Your task to perform on an android device: change timer sound Image 0: 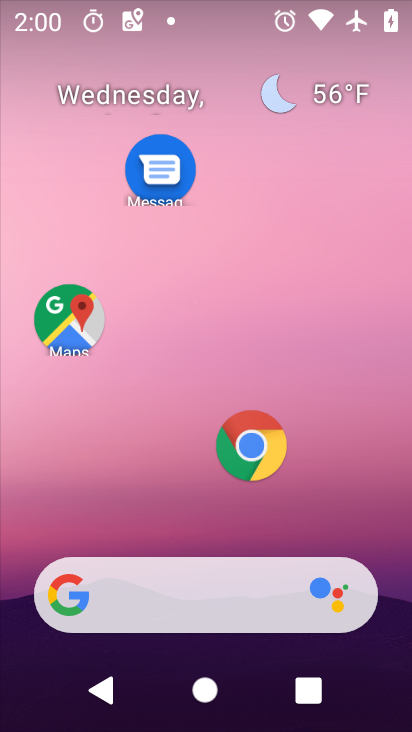
Step 0: drag from (187, 526) to (217, 78)
Your task to perform on an android device: change timer sound Image 1: 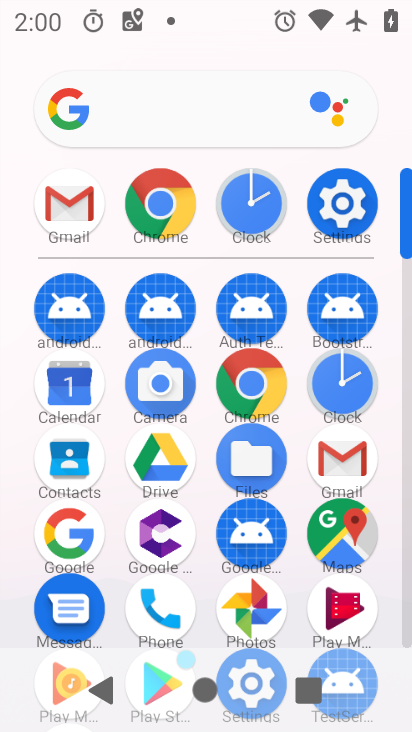
Step 1: drag from (194, 258) to (192, 137)
Your task to perform on an android device: change timer sound Image 2: 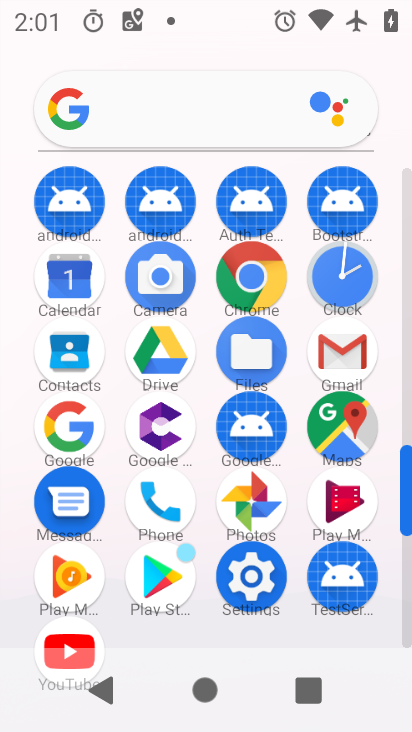
Step 2: click (342, 289)
Your task to perform on an android device: change timer sound Image 3: 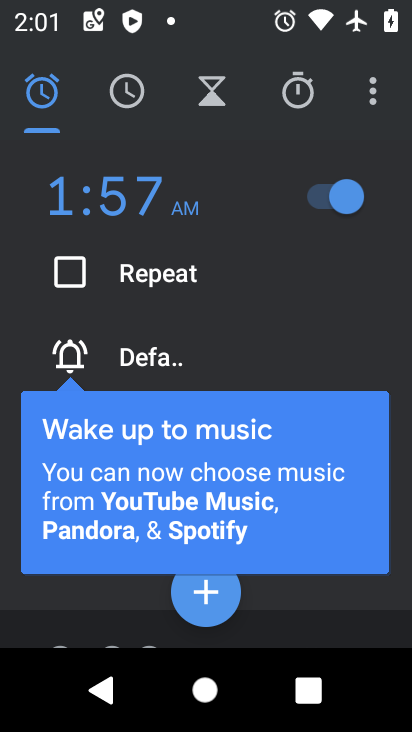
Step 3: click (205, 100)
Your task to perform on an android device: change timer sound Image 4: 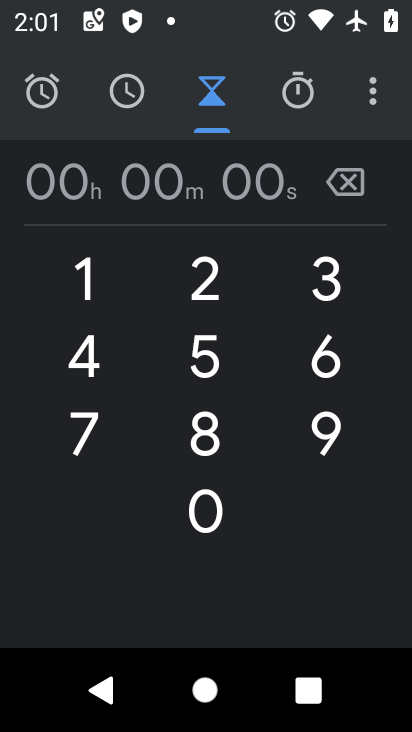
Step 4: click (362, 94)
Your task to perform on an android device: change timer sound Image 5: 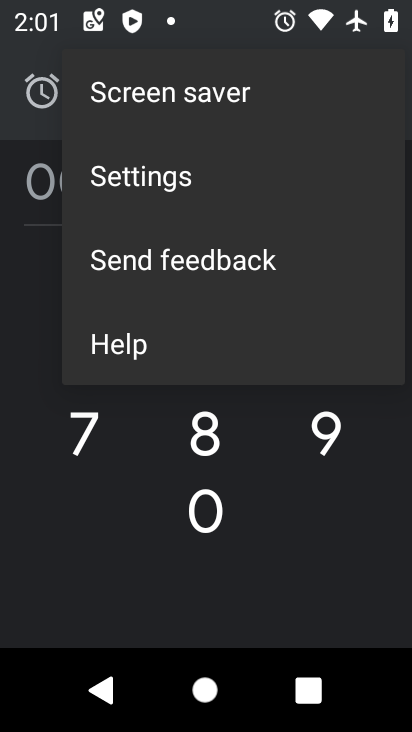
Step 5: click (210, 184)
Your task to perform on an android device: change timer sound Image 6: 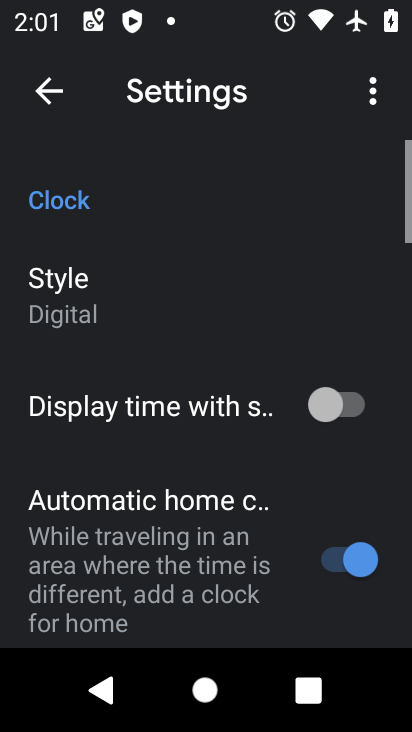
Step 6: drag from (155, 521) to (169, 17)
Your task to perform on an android device: change timer sound Image 7: 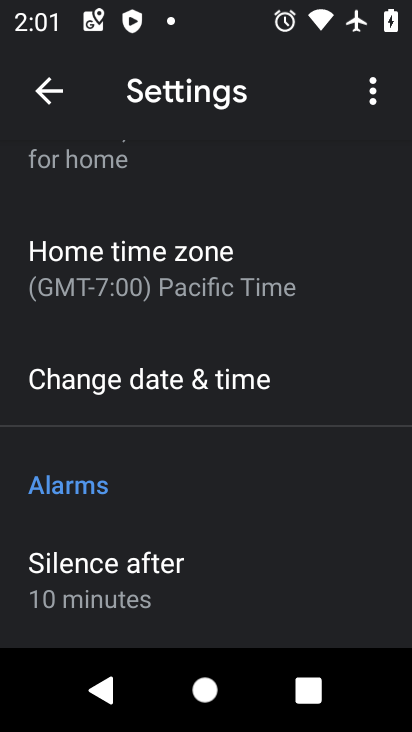
Step 7: drag from (198, 544) to (206, 162)
Your task to perform on an android device: change timer sound Image 8: 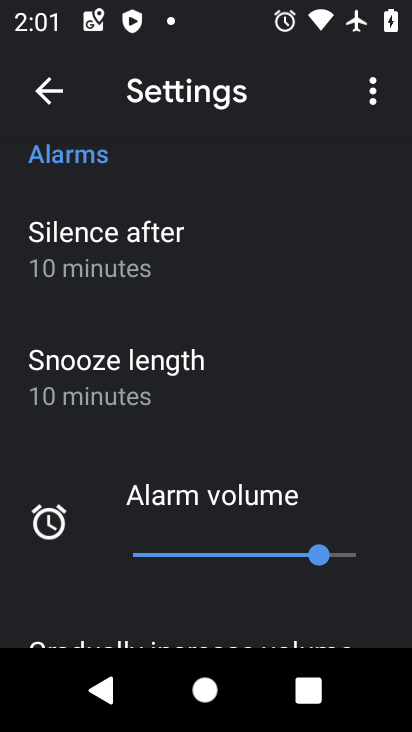
Step 8: drag from (219, 450) to (190, 109)
Your task to perform on an android device: change timer sound Image 9: 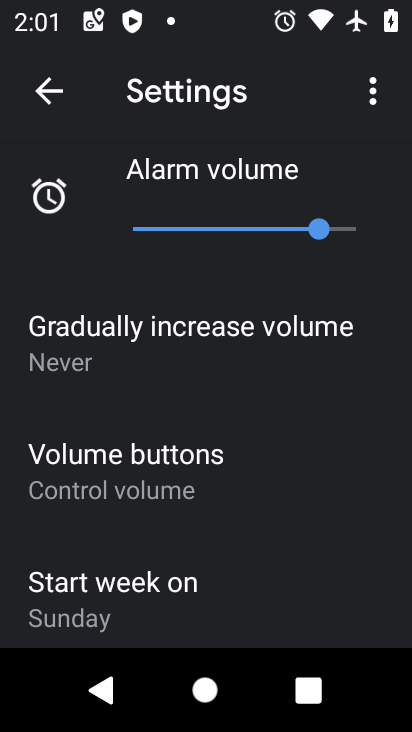
Step 9: drag from (194, 465) to (185, 116)
Your task to perform on an android device: change timer sound Image 10: 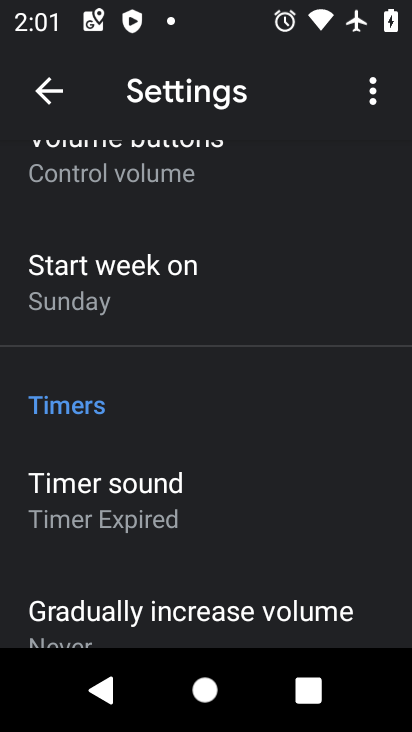
Step 10: drag from (181, 498) to (187, 260)
Your task to perform on an android device: change timer sound Image 11: 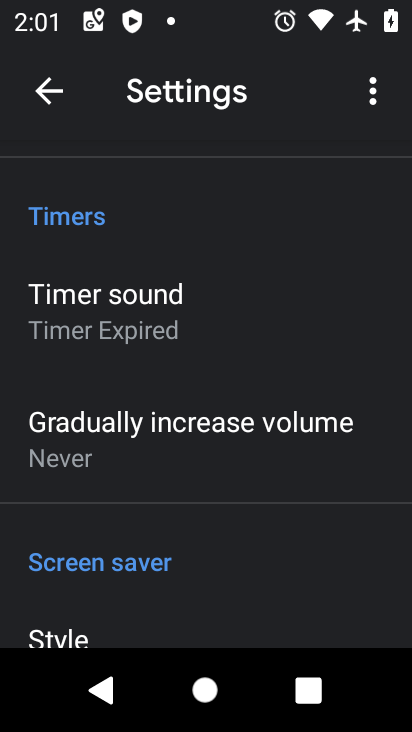
Step 11: click (183, 310)
Your task to perform on an android device: change timer sound Image 12: 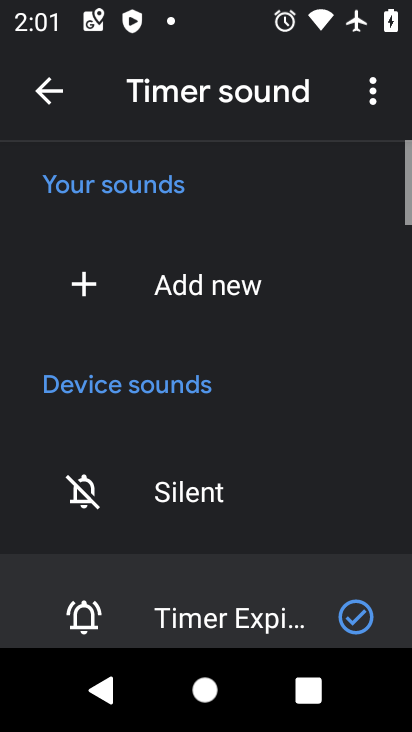
Step 12: drag from (179, 513) to (202, 118)
Your task to perform on an android device: change timer sound Image 13: 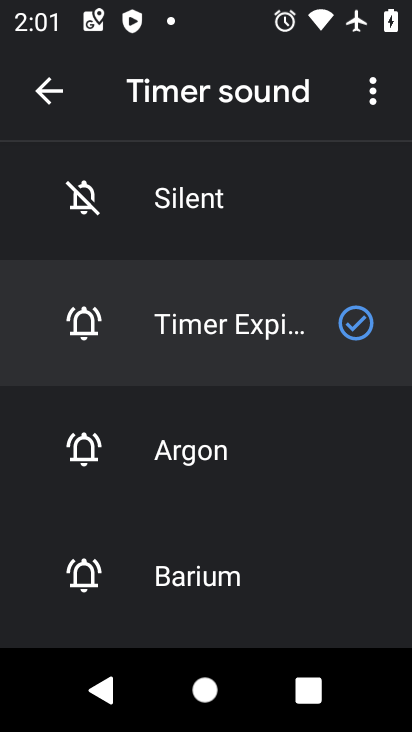
Step 13: click (205, 455)
Your task to perform on an android device: change timer sound Image 14: 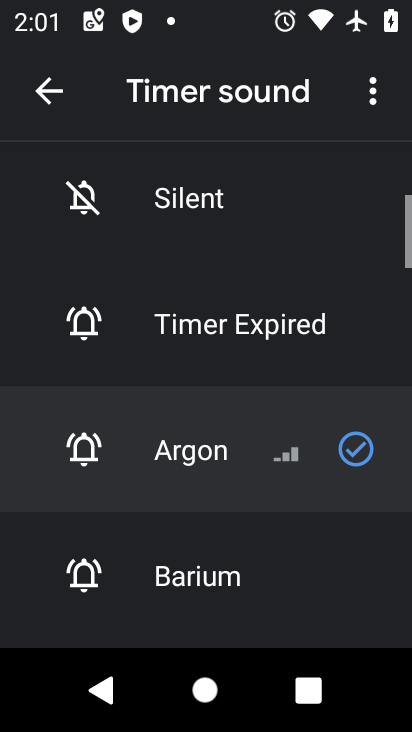
Step 14: task complete